Your task to perform on an android device: Do I have any events today? Image 0: 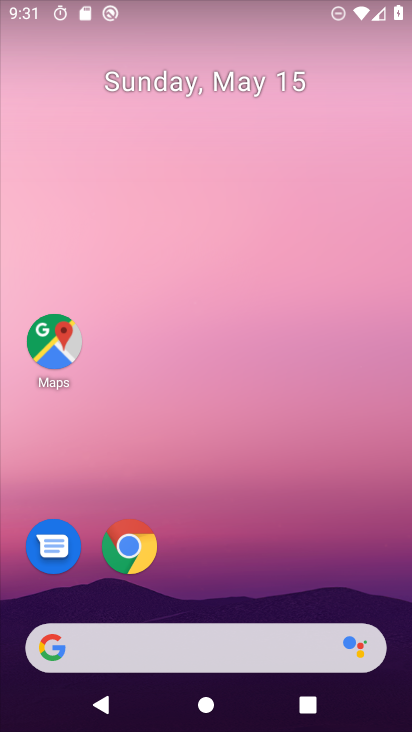
Step 0: drag from (262, 506) to (222, 0)
Your task to perform on an android device: Do I have any events today? Image 1: 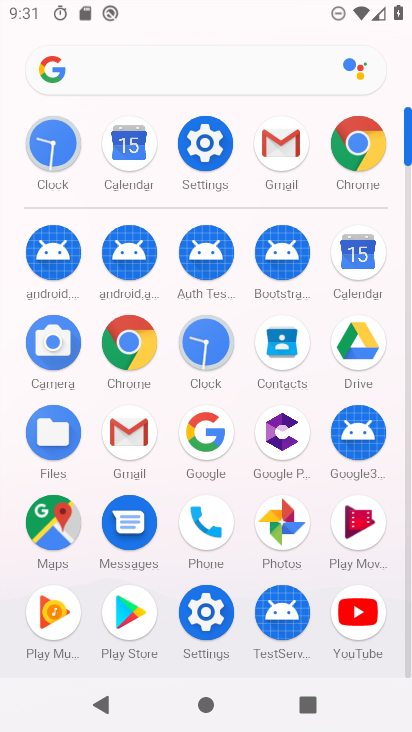
Step 1: click (134, 141)
Your task to perform on an android device: Do I have any events today? Image 2: 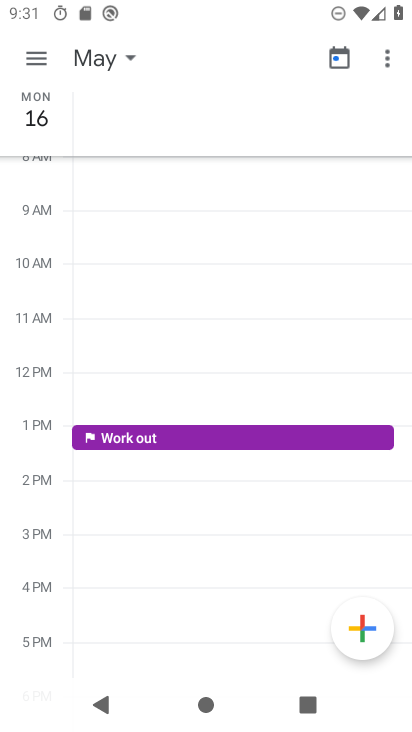
Step 2: drag from (145, 213) to (194, 490)
Your task to perform on an android device: Do I have any events today? Image 3: 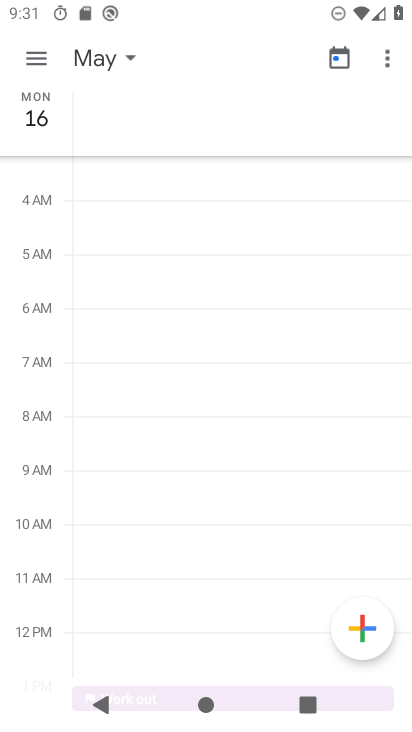
Step 3: drag from (178, 201) to (208, 516)
Your task to perform on an android device: Do I have any events today? Image 4: 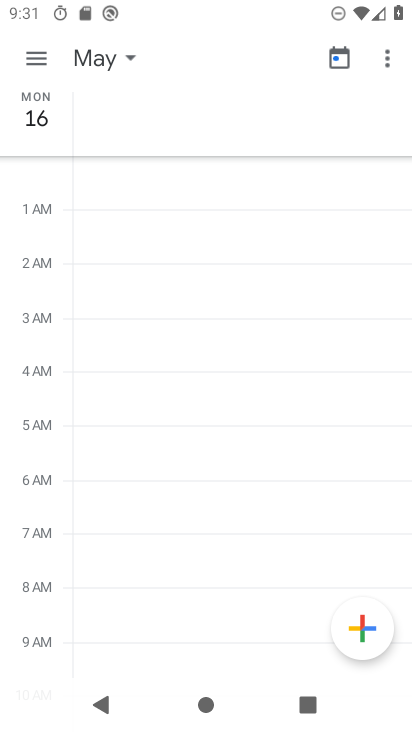
Step 4: click (37, 51)
Your task to perform on an android device: Do I have any events today? Image 5: 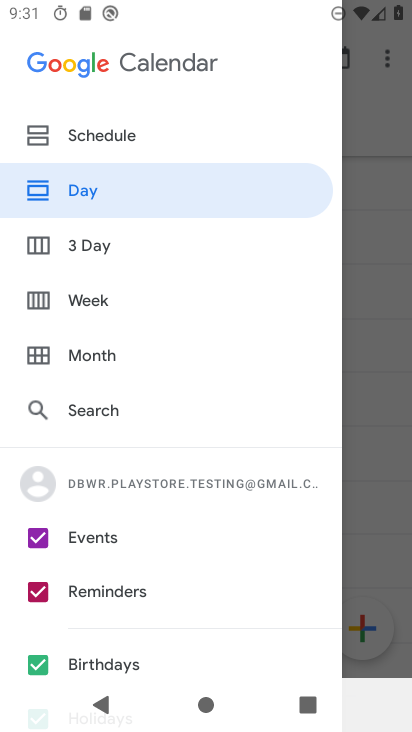
Step 5: click (60, 125)
Your task to perform on an android device: Do I have any events today? Image 6: 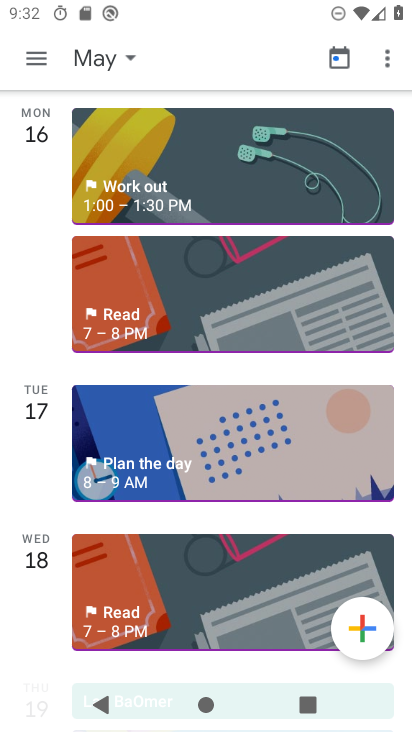
Step 6: drag from (200, 210) to (192, 524)
Your task to perform on an android device: Do I have any events today? Image 7: 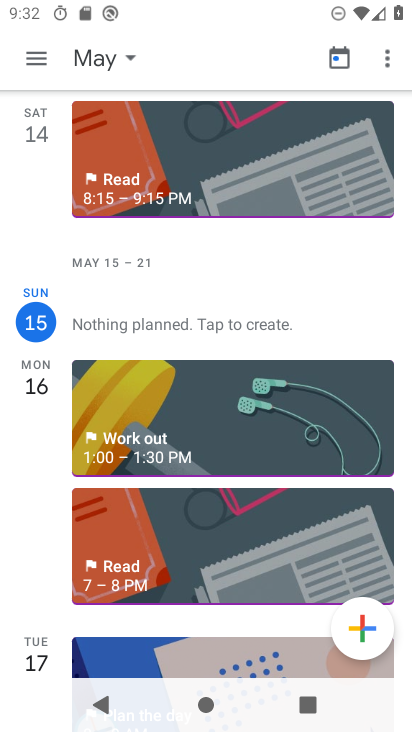
Step 7: click (245, 322)
Your task to perform on an android device: Do I have any events today? Image 8: 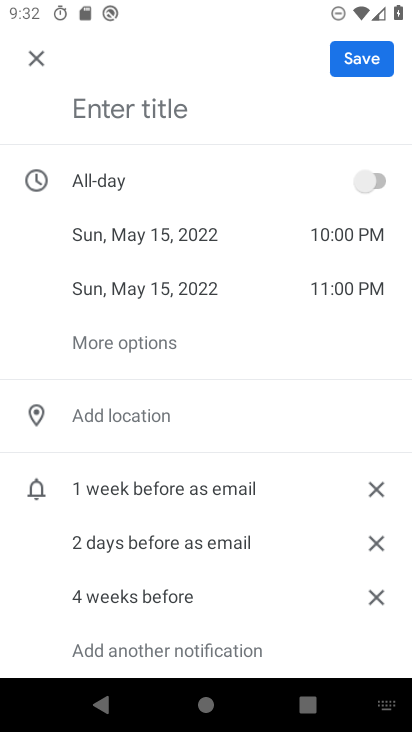
Step 8: click (34, 52)
Your task to perform on an android device: Do I have any events today? Image 9: 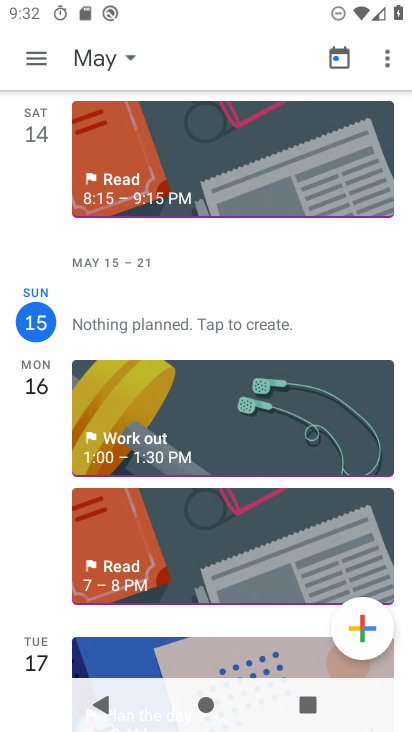
Step 9: task complete